Your task to perform on an android device: turn notification dots off Image 0: 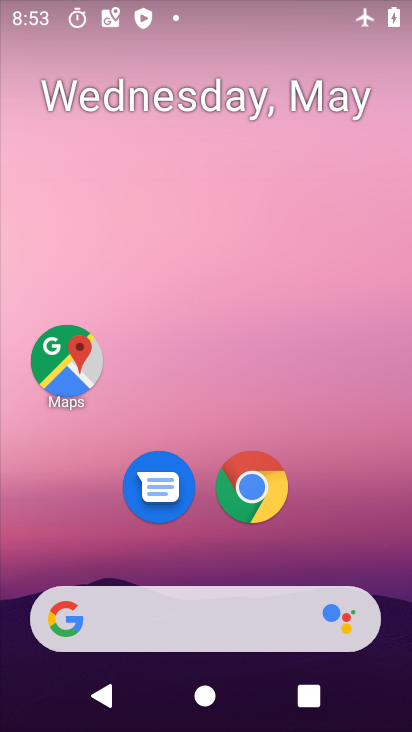
Step 0: drag from (194, 561) to (215, 114)
Your task to perform on an android device: turn notification dots off Image 1: 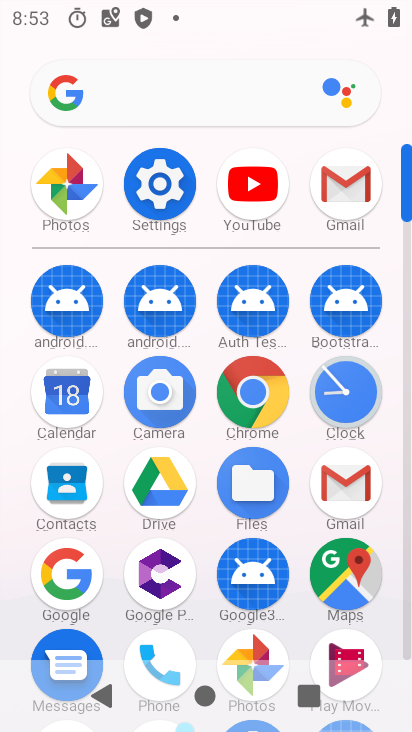
Step 1: click (163, 162)
Your task to perform on an android device: turn notification dots off Image 2: 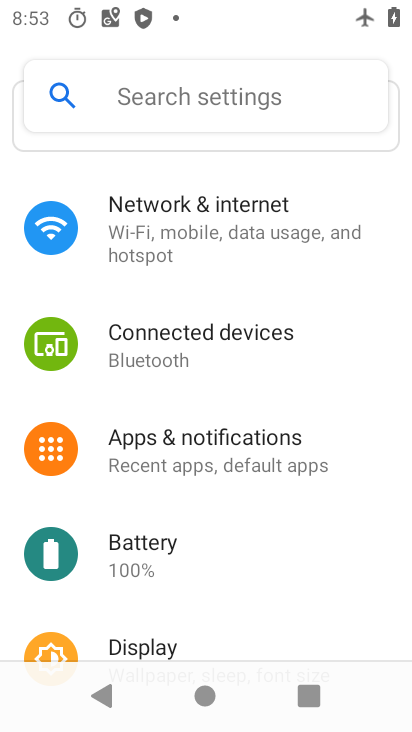
Step 2: click (188, 467)
Your task to perform on an android device: turn notification dots off Image 3: 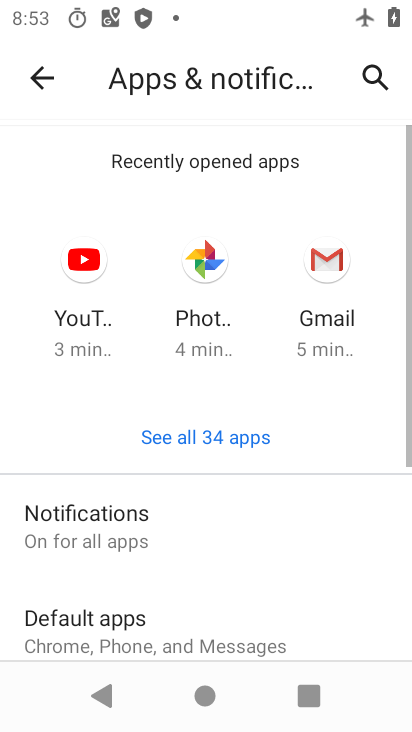
Step 3: drag from (231, 602) to (240, 332)
Your task to perform on an android device: turn notification dots off Image 4: 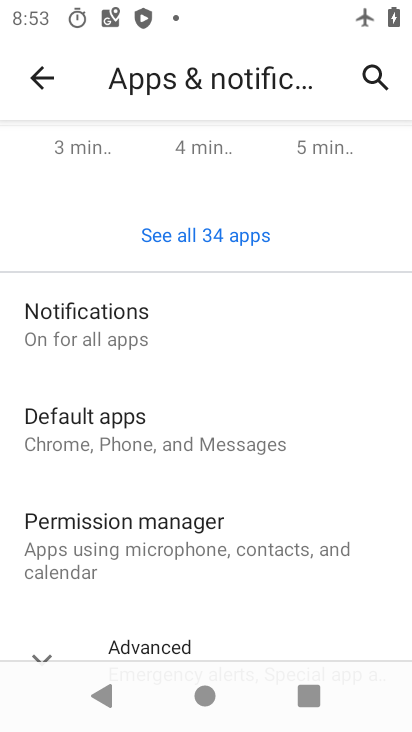
Step 4: click (109, 321)
Your task to perform on an android device: turn notification dots off Image 5: 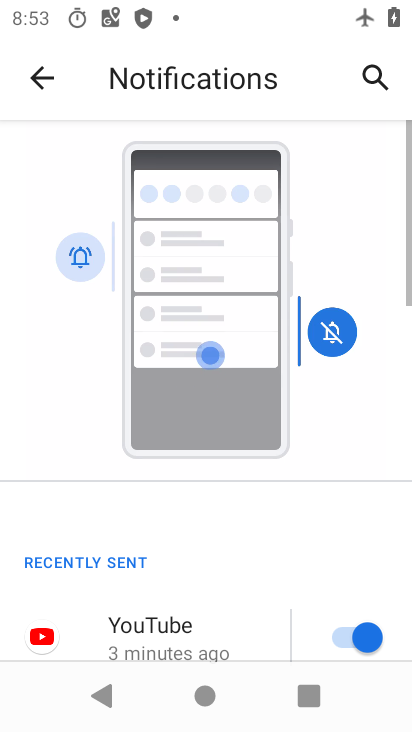
Step 5: drag from (208, 582) to (264, 128)
Your task to perform on an android device: turn notification dots off Image 6: 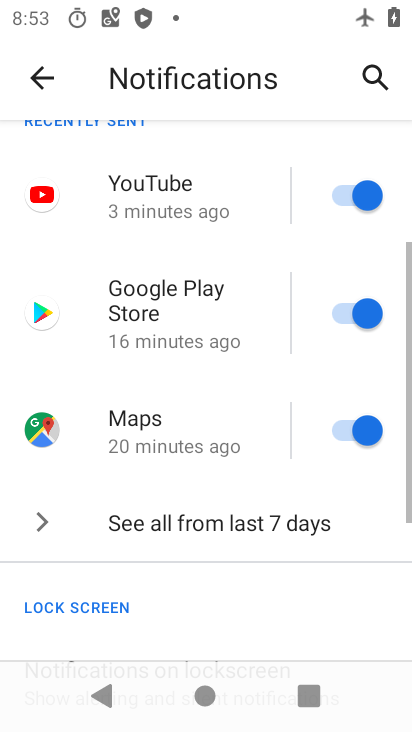
Step 6: drag from (241, 544) to (237, 199)
Your task to perform on an android device: turn notification dots off Image 7: 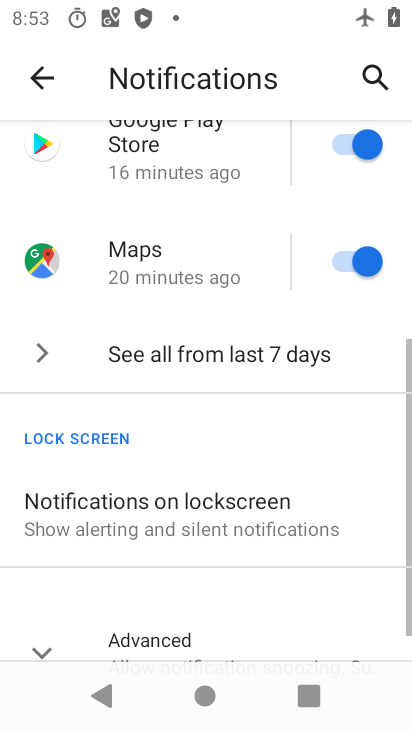
Step 7: drag from (220, 589) to (266, 236)
Your task to perform on an android device: turn notification dots off Image 8: 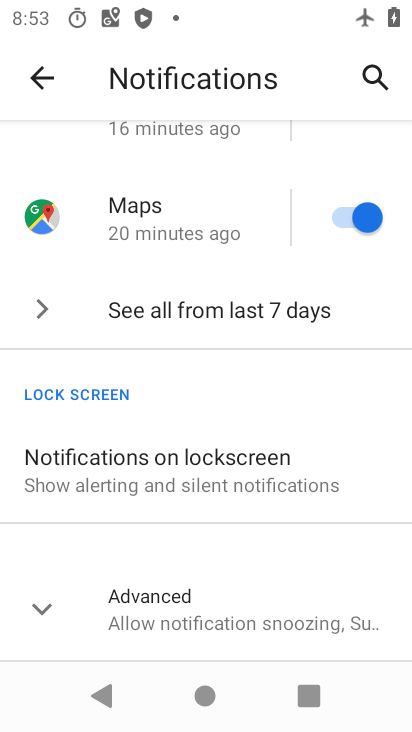
Step 8: click (224, 593)
Your task to perform on an android device: turn notification dots off Image 9: 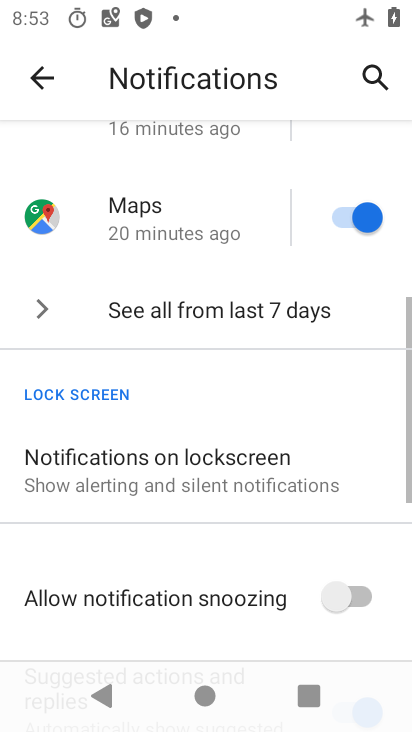
Step 9: drag from (224, 593) to (235, 94)
Your task to perform on an android device: turn notification dots off Image 10: 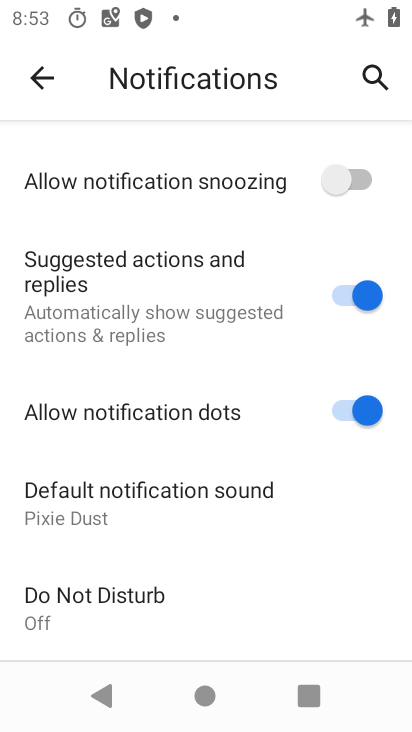
Step 10: click (340, 407)
Your task to perform on an android device: turn notification dots off Image 11: 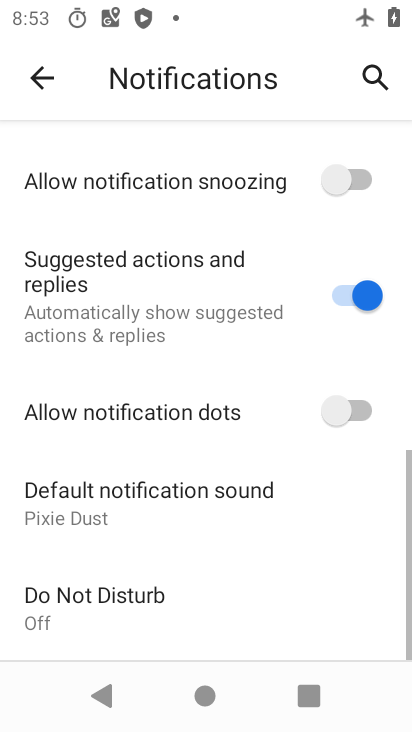
Step 11: task complete